Your task to perform on an android device: change notifications settings Image 0: 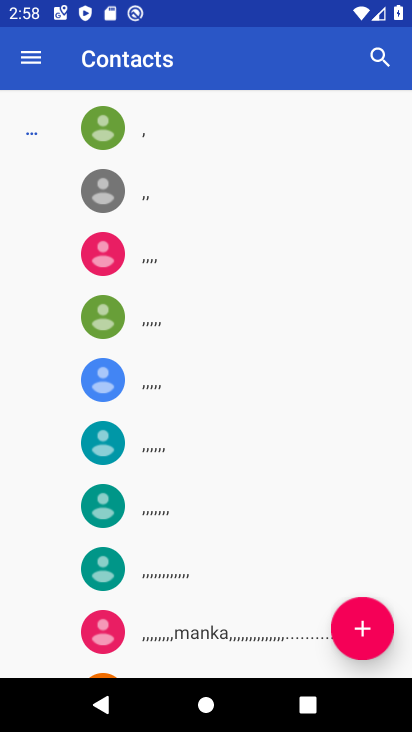
Step 0: press home button
Your task to perform on an android device: change notifications settings Image 1: 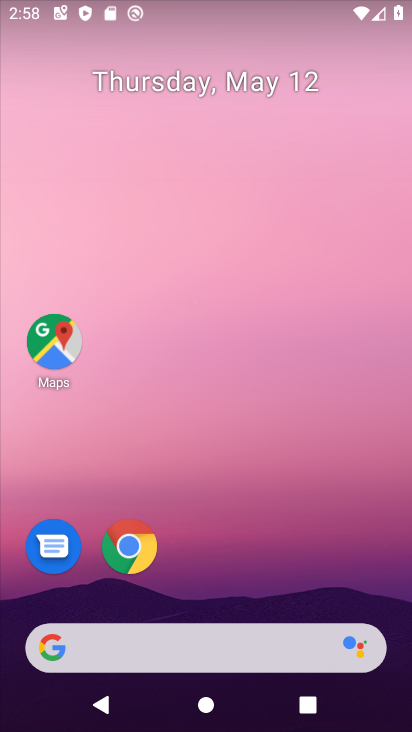
Step 1: drag from (268, 586) to (288, 300)
Your task to perform on an android device: change notifications settings Image 2: 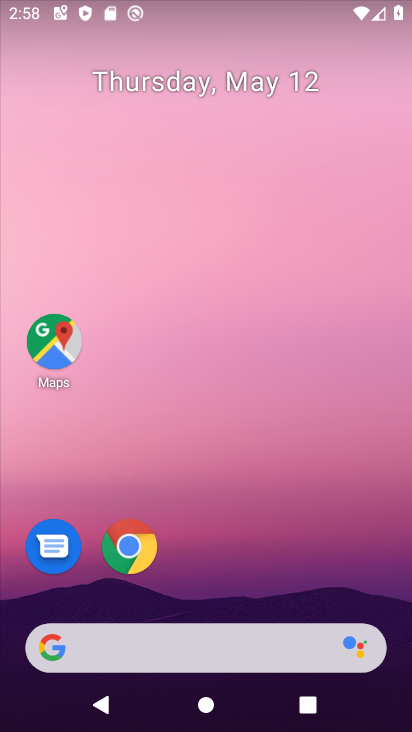
Step 2: drag from (215, 588) to (257, 266)
Your task to perform on an android device: change notifications settings Image 3: 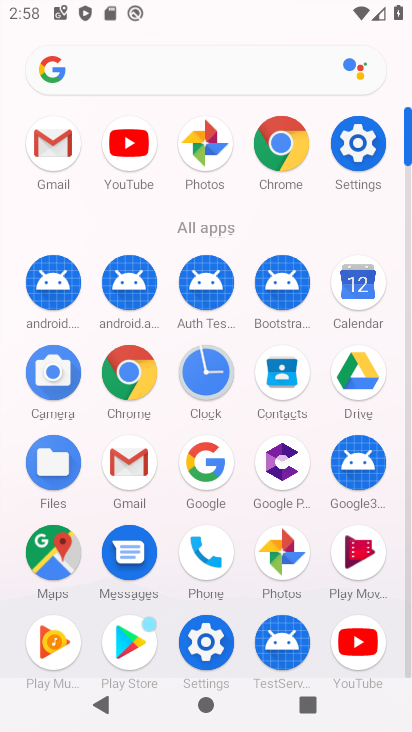
Step 3: click (363, 132)
Your task to perform on an android device: change notifications settings Image 4: 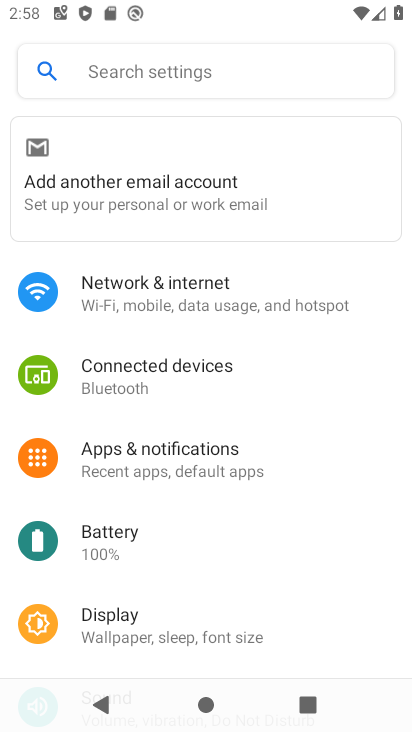
Step 4: click (175, 449)
Your task to perform on an android device: change notifications settings Image 5: 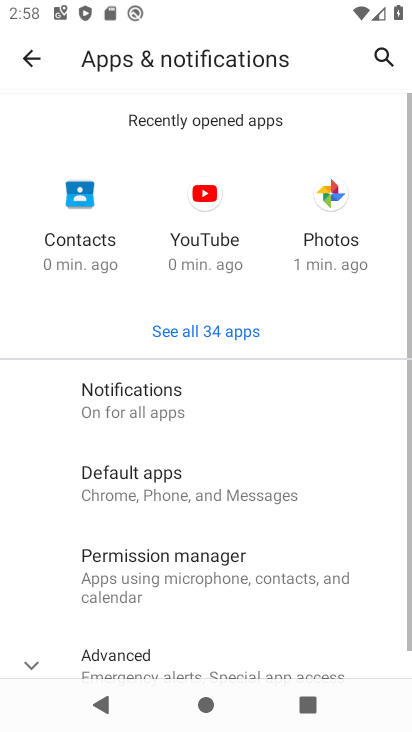
Step 5: click (151, 401)
Your task to perform on an android device: change notifications settings Image 6: 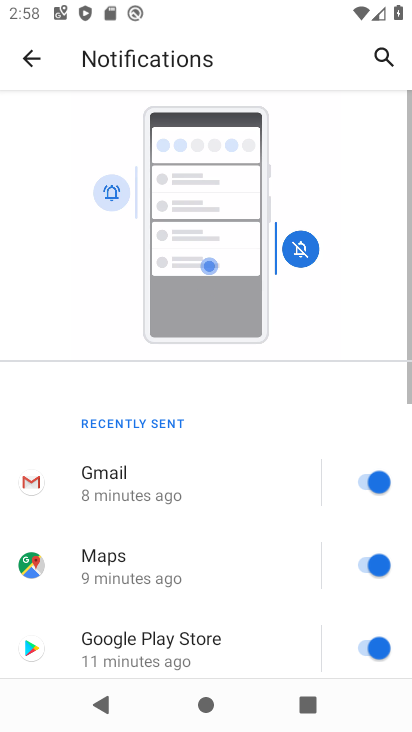
Step 6: drag from (171, 599) to (236, 238)
Your task to perform on an android device: change notifications settings Image 7: 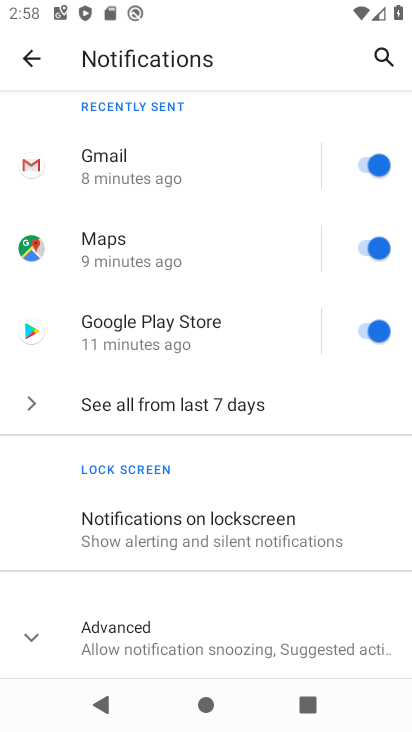
Step 7: click (205, 414)
Your task to perform on an android device: change notifications settings Image 8: 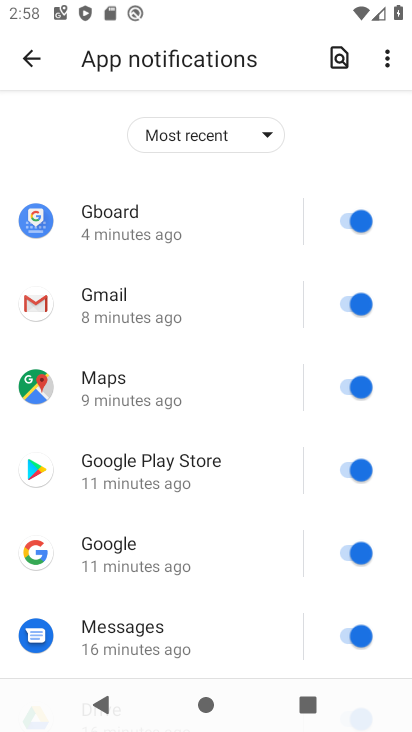
Step 8: click (350, 212)
Your task to perform on an android device: change notifications settings Image 9: 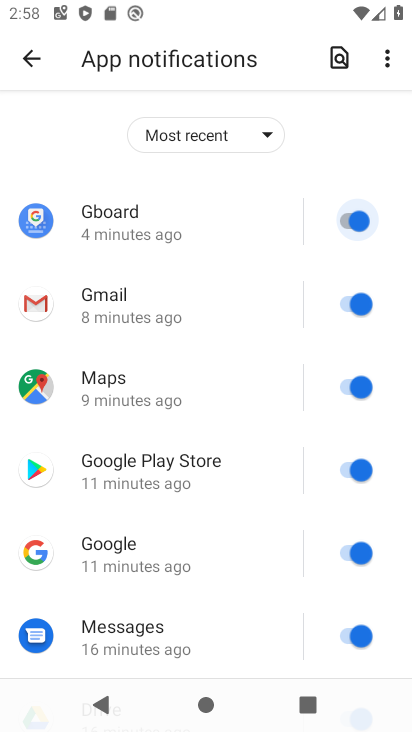
Step 9: click (343, 305)
Your task to perform on an android device: change notifications settings Image 10: 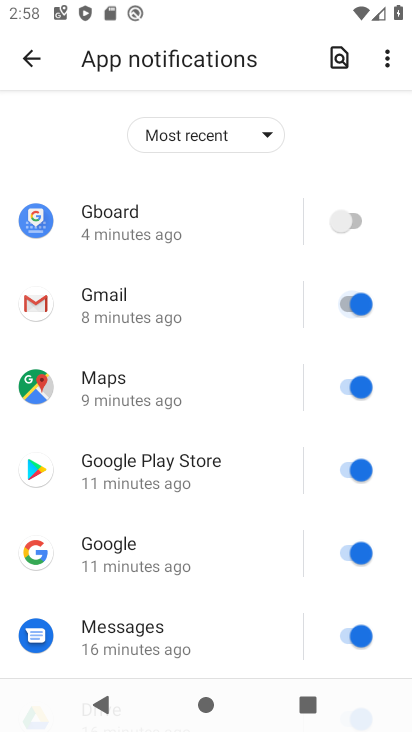
Step 10: click (343, 371)
Your task to perform on an android device: change notifications settings Image 11: 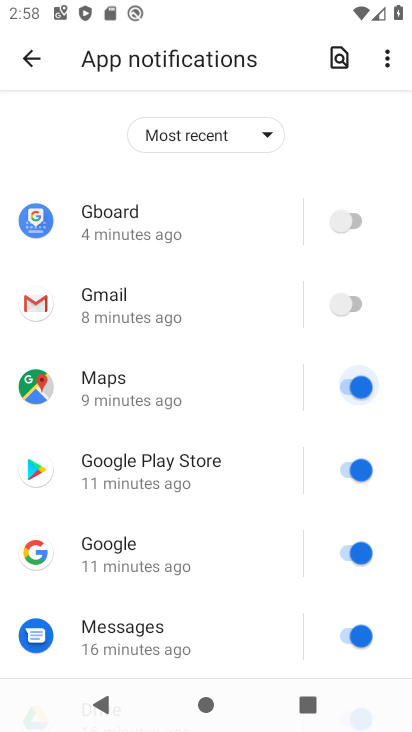
Step 11: click (349, 469)
Your task to perform on an android device: change notifications settings Image 12: 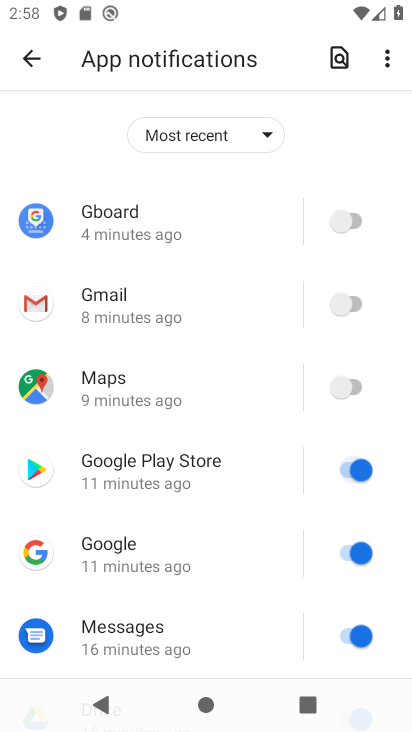
Step 12: click (342, 542)
Your task to perform on an android device: change notifications settings Image 13: 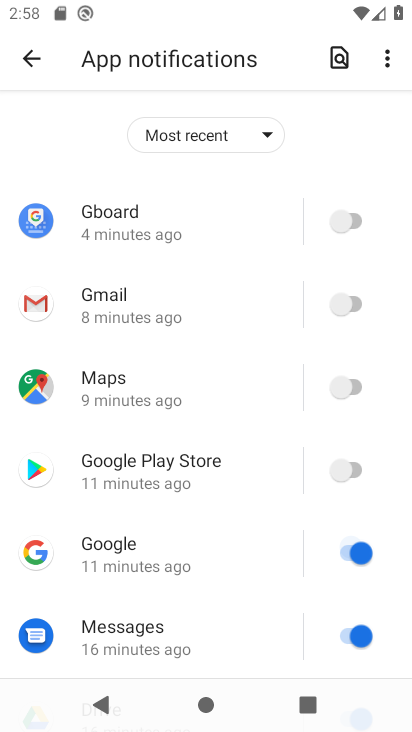
Step 13: click (342, 635)
Your task to perform on an android device: change notifications settings Image 14: 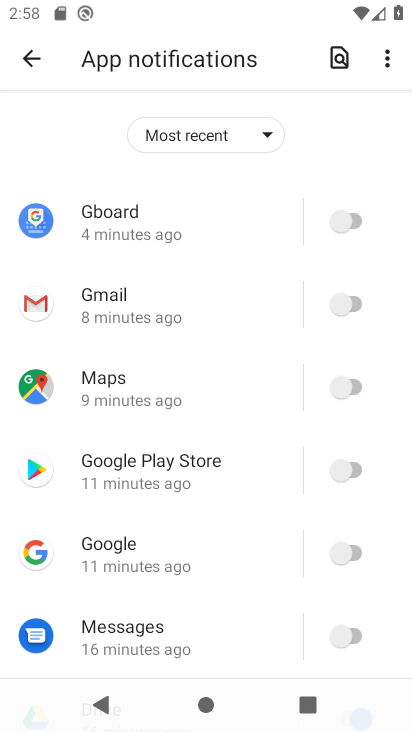
Step 14: drag from (161, 567) to (212, 211)
Your task to perform on an android device: change notifications settings Image 15: 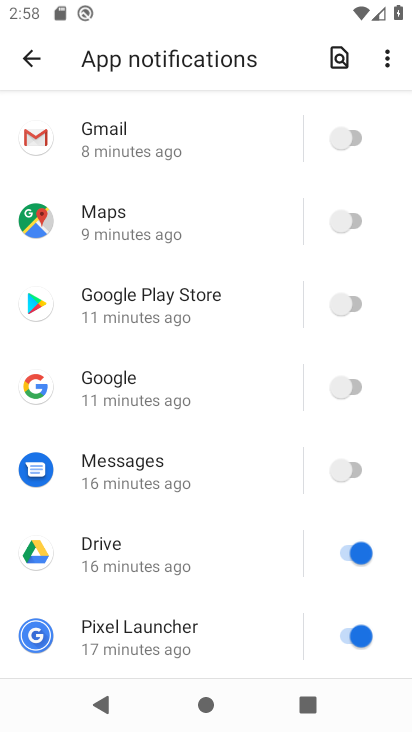
Step 15: click (336, 550)
Your task to perform on an android device: change notifications settings Image 16: 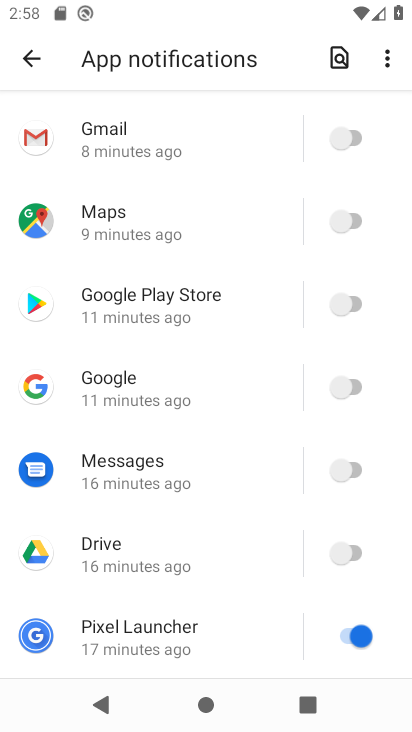
Step 16: click (336, 627)
Your task to perform on an android device: change notifications settings Image 17: 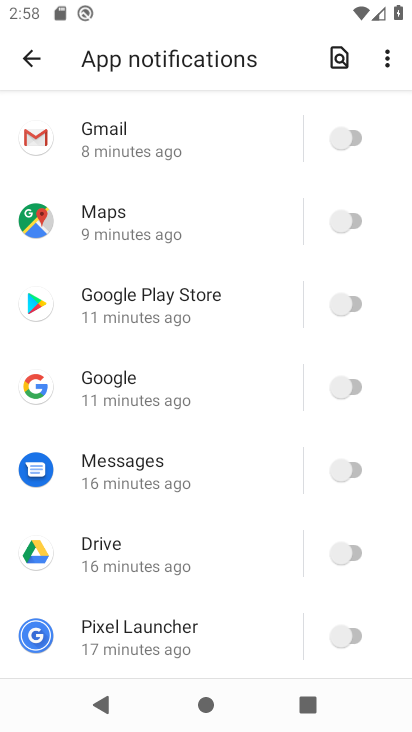
Step 17: task complete